Your task to perform on an android device: Go to Yahoo.com Image 0: 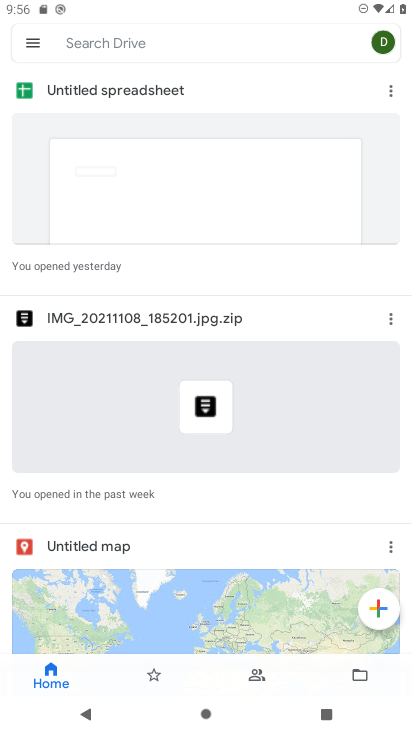
Step 0: press home button
Your task to perform on an android device: Go to Yahoo.com Image 1: 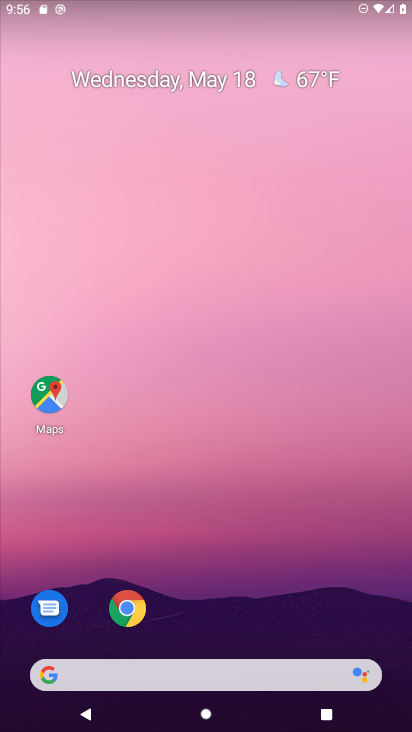
Step 1: click (128, 615)
Your task to perform on an android device: Go to Yahoo.com Image 2: 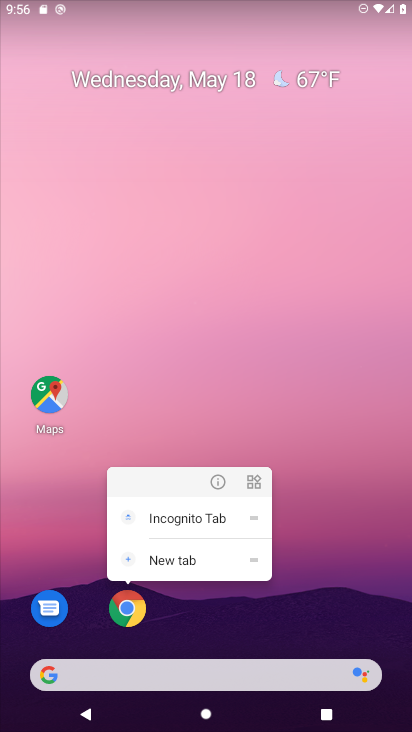
Step 2: click (134, 622)
Your task to perform on an android device: Go to Yahoo.com Image 3: 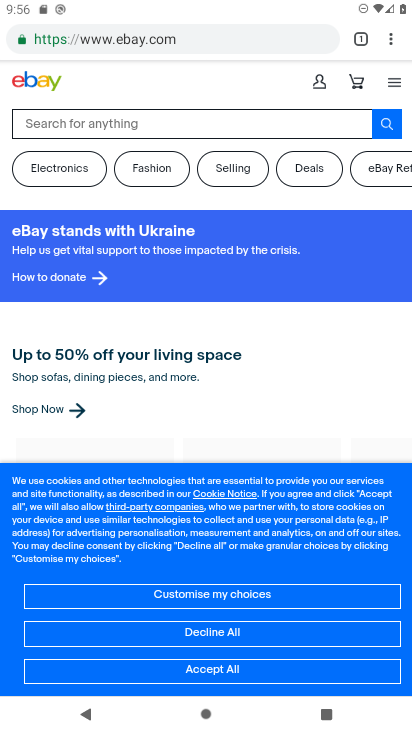
Step 3: click (208, 47)
Your task to perform on an android device: Go to Yahoo.com Image 4: 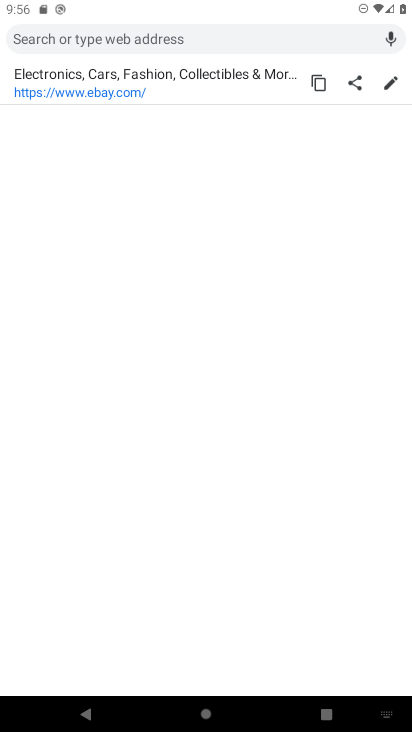
Step 4: type "Yahoo.com"
Your task to perform on an android device: Go to Yahoo.com Image 5: 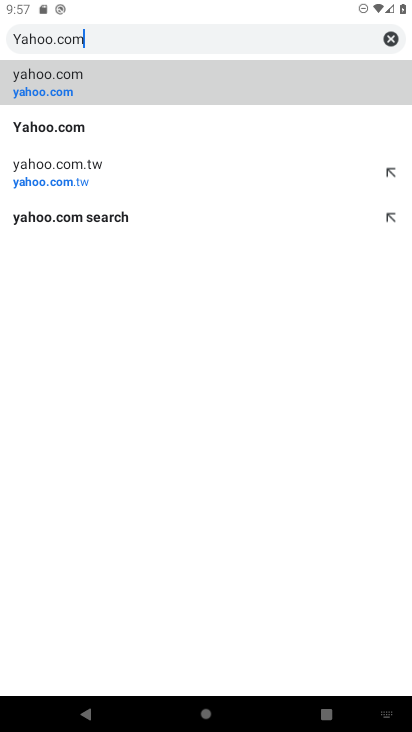
Step 5: click (43, 91)
Your task to perform on an android device: Go to Yahoo.com Image 6: 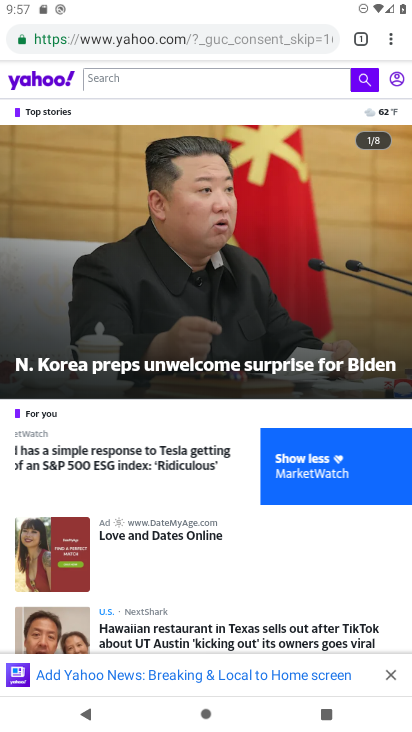
Step 6: task complete